Your task to perform on an android device: check google app version Image 0: 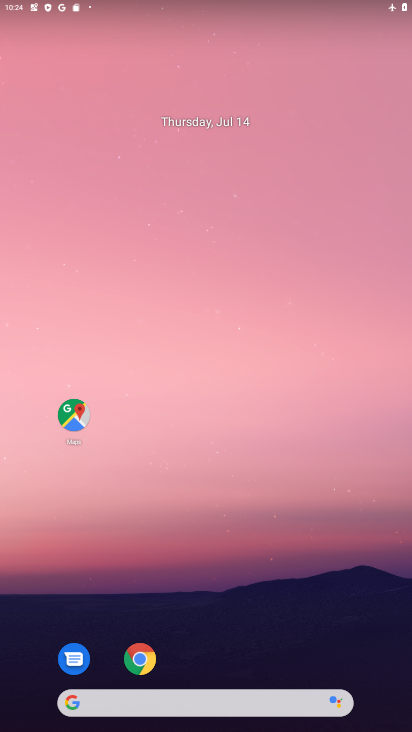
Step 0: drag from (307, 650) to (286, 178)
Your task to perform on an android device: check google app version Image 1: 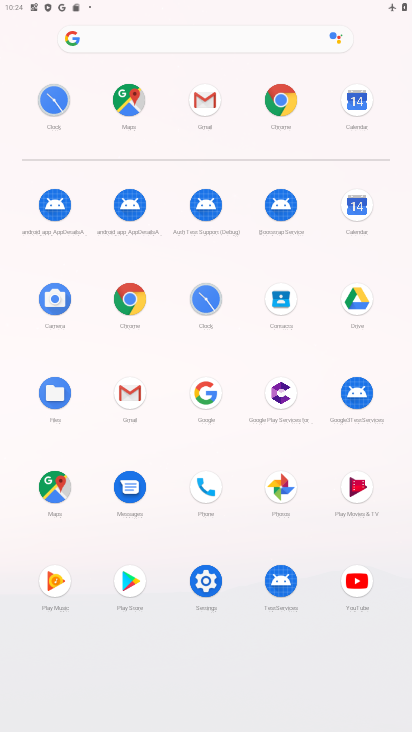
Step 1: click (199, 393)
Your task to perform on an android device: check google app version Image 2: 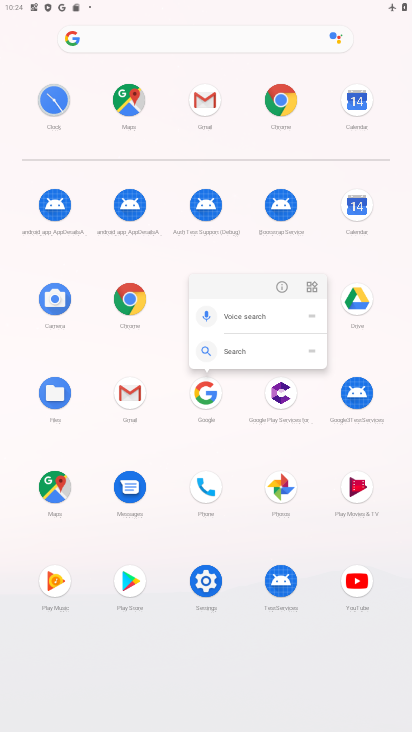
Step 2: click (278, 285)
Your task to perform on an android device: check google app version Image 3: 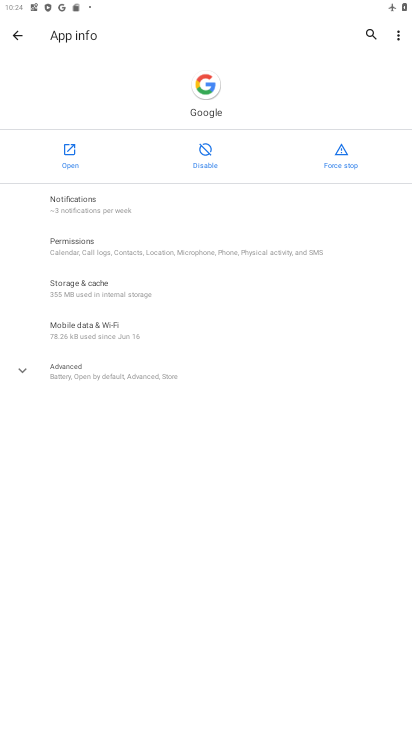
Step 3: click (93, 376)
Your task to perform on an android device: check google app version Image 4: 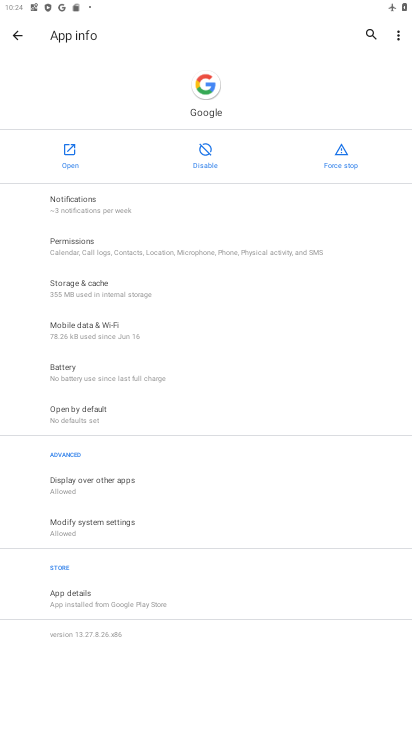
Step 4: task complete